Your task to perform on an android device: Open Google Maps and go to "Timeline" Image 0: 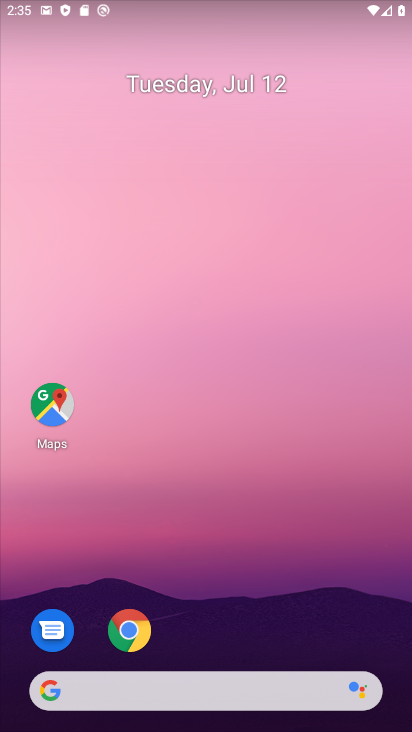
Step 0: drag from (333, 697) to (301, 18)
Your task to perform on an android device: Open Google Maps and go to "Timeline" Image 1: 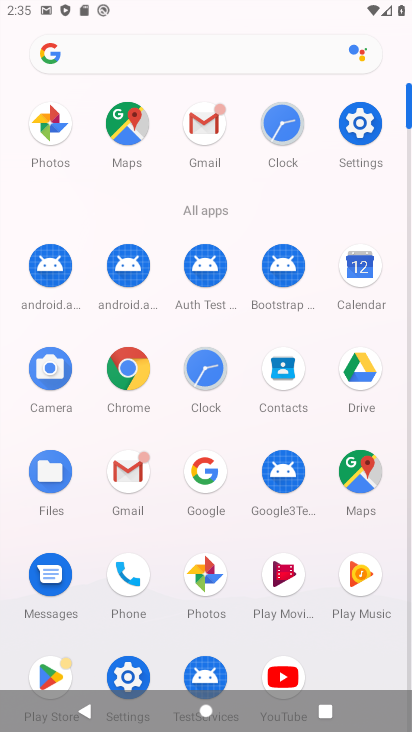
Step 1: click (357, 465)
Your task to perform on an android device: Open Google Maps and go to "Timeline" Image 2: 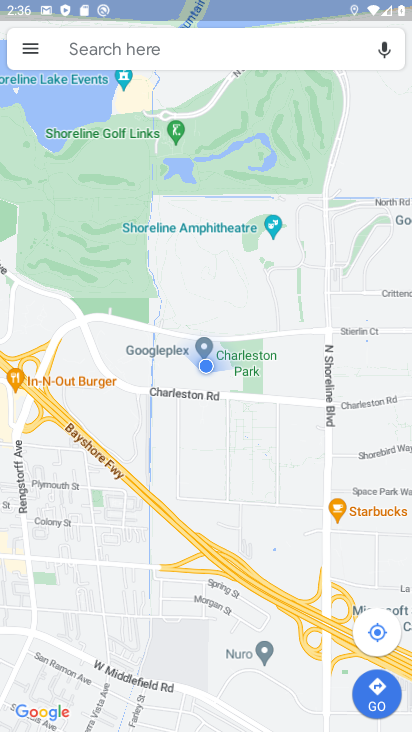
Step 2: click (29, 45)
Your task to perform on an android device: Open Google Maps and go to "Timeline" Image 3: 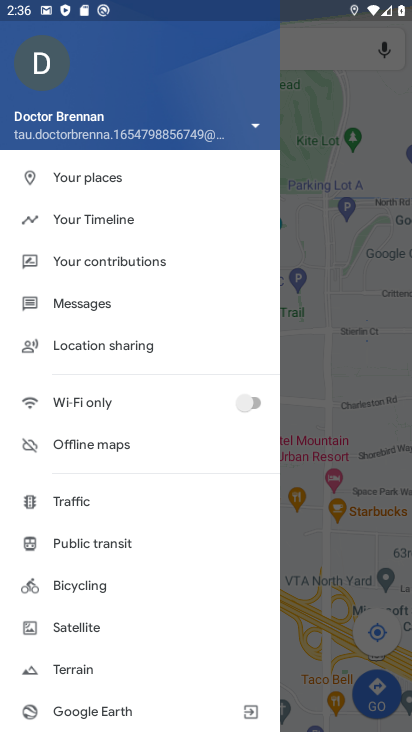
Step 3: click (97, 222)
Your task to perform on an android device: Open Google Maps and go to "Timeline" Image 4: 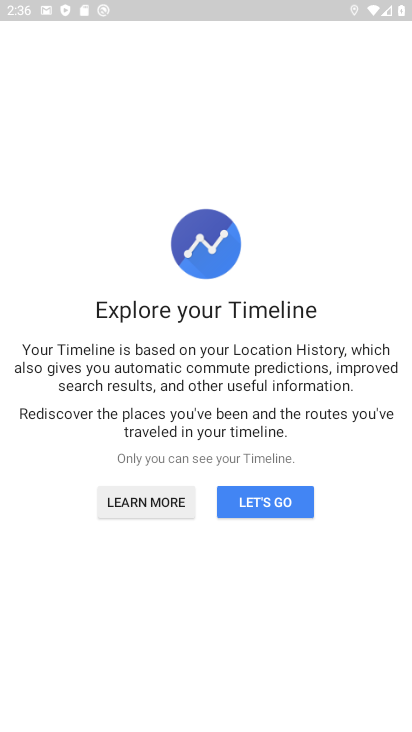
Step 4: click (255, 502)
Your task to perform on an android device: Open Google Maps and go to "Timeline" Image 5: 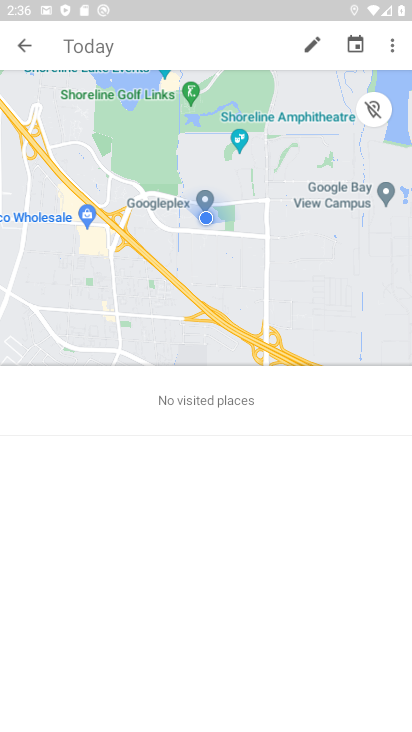
Step 5: click (389, 44)
Your task to perform on an android device: Open Google Maps and go to "Timeline" Image 6: 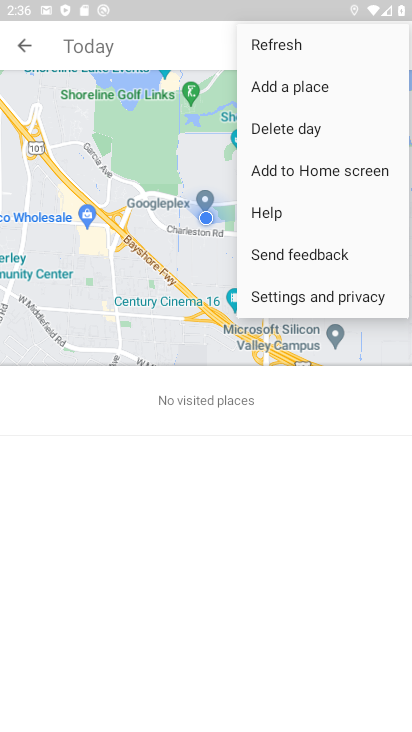
Step 6: click (326, 445)
Your task to perform on an android device: Open Google Maps and go to "Timeline" Image 7: 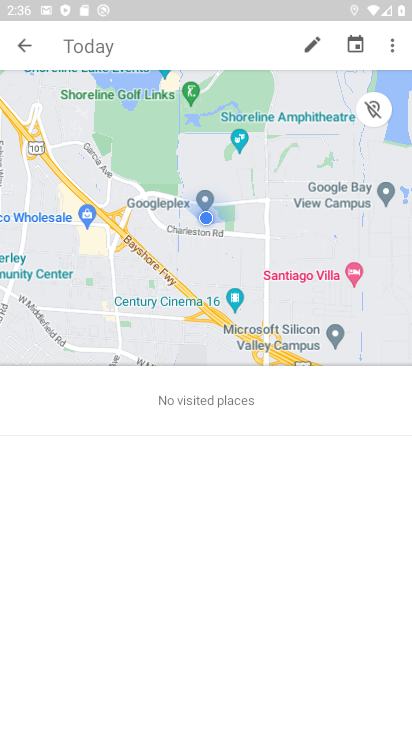
Step 7: task complete